Your task to perform on an android device: stop showing notifications on the lock screen Image 0: 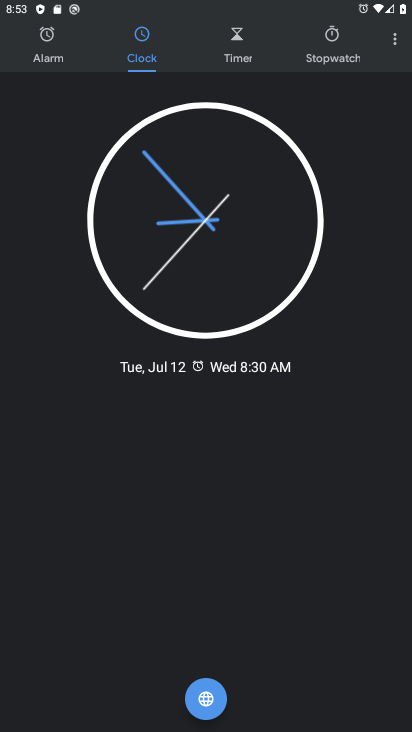
Step 0: press home button
Your task to perform on an android device: stop showing notifications on the lock screen Image 1: 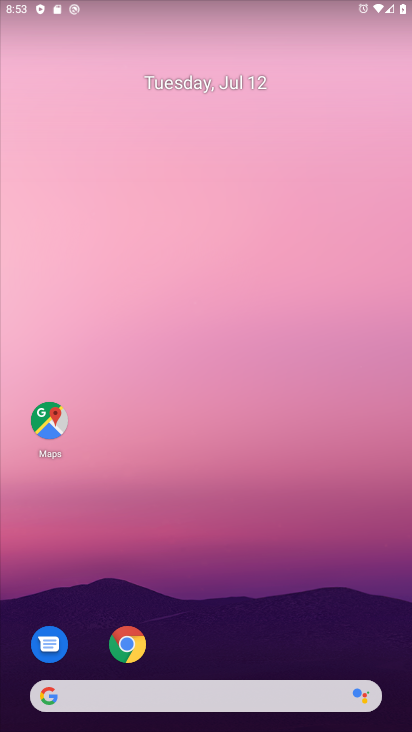
Step 1: drag from (25, 716) to (273, 117)
Your task to perform on an android device: stop showing notifications on the lock screen Image 2: 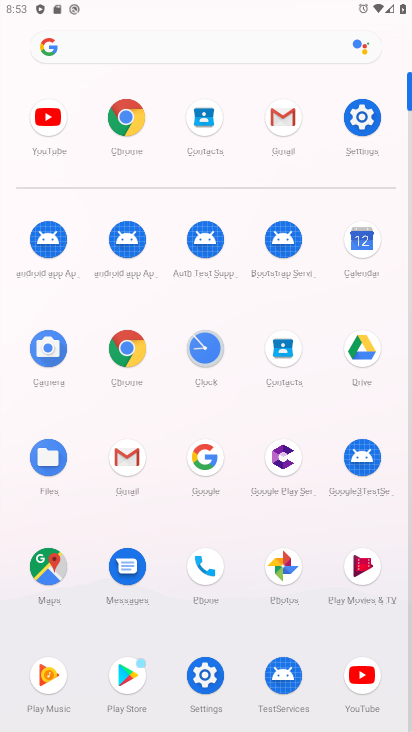
Step 2: click (194, 676)
Your task to perform on an android device: stop showing notifications on the lock screen Image 3: 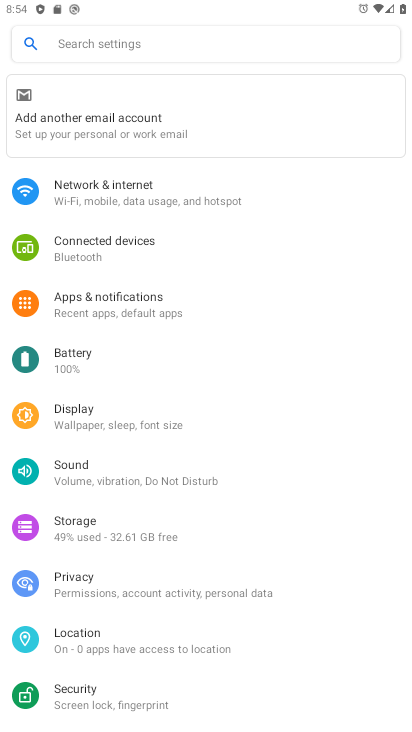
Step 3: click (117, 301)
Your task to perform on an android device: stop showing notifications on the lock screen Image 4: 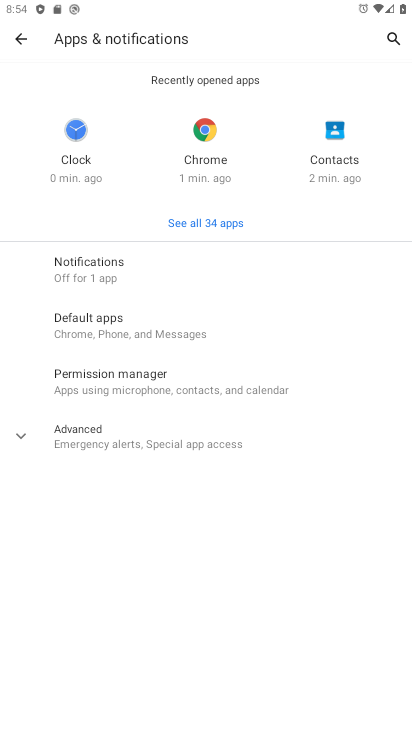
Step 4: click (80, 442)
Your task to perform on an android device: stop showing notifications on the lock screen Image 5: 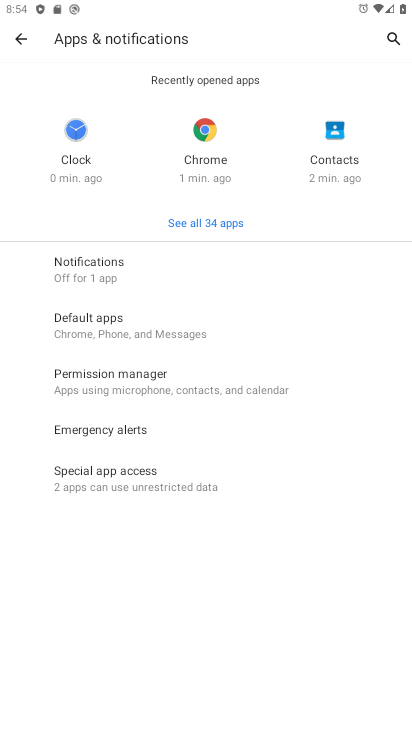
Step 5: click (76, 478)
Your task to perform on an android device: stop showing notifications on the lock screen Image 6: 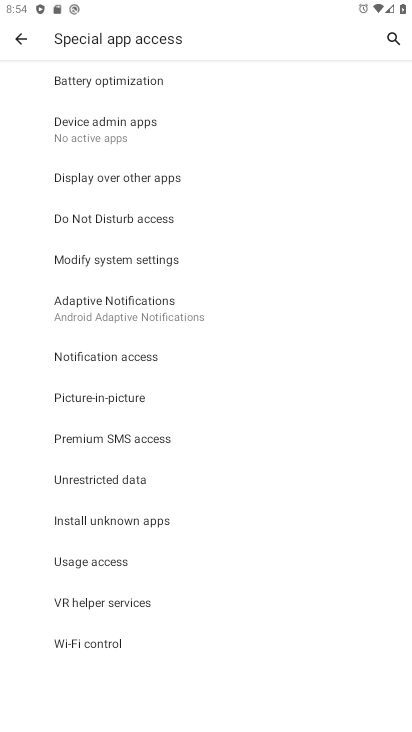
Step 6: click (25, 39)
Your task to perform on an android device: stop showing notifications on the lock screen Image 7: 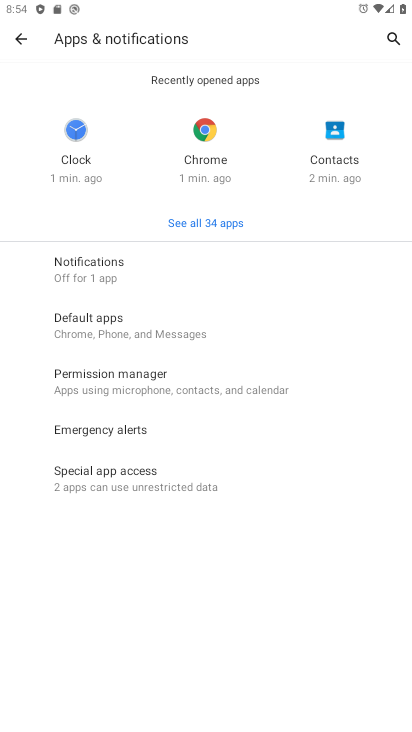
Step 7: click (88, 281)
Your task to perform on an android device: stop showing notifications on the lock screen Image 8: 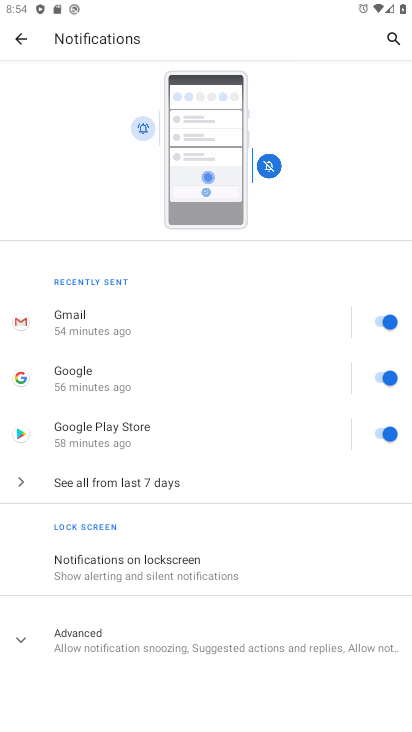
Step 8: click (116, 557)
Your task to perform on an android device: stop showing notifications on the lock screen Image 9: 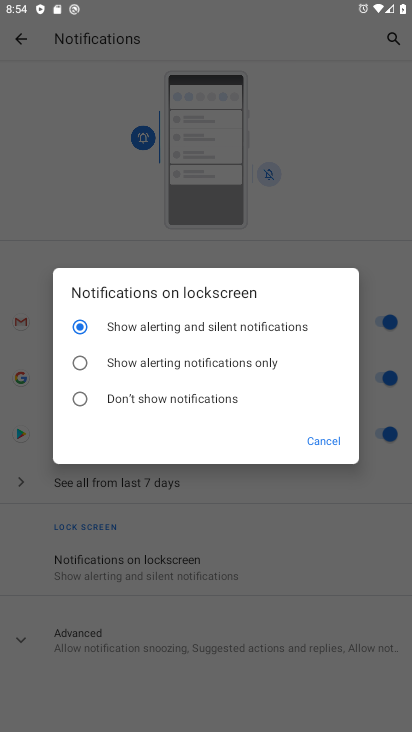
Step 9: click (94, 395)
Your task to perform on an android device: stop showing notifications on the lock screen Image 10: 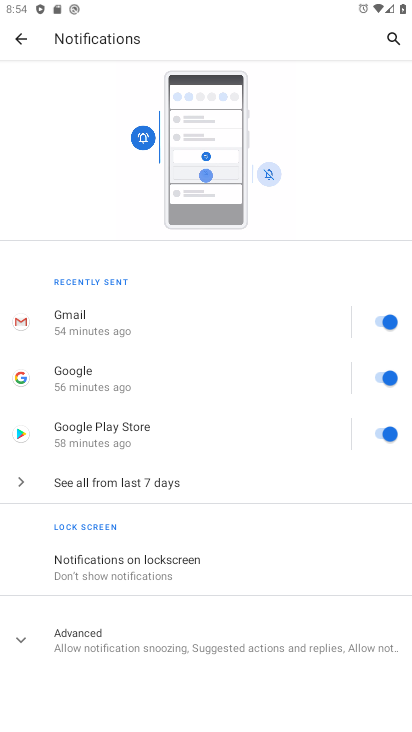
Step 10: task complete